Your task to perform on an android device: Is it going to rain tomorrow? Image 0: 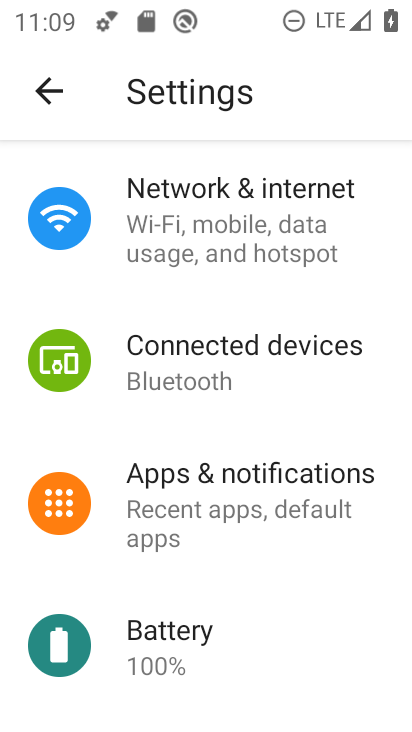
Step 0: press home button
Your task to perform on an android device: Is it going to rain tomorrow? Image 1: 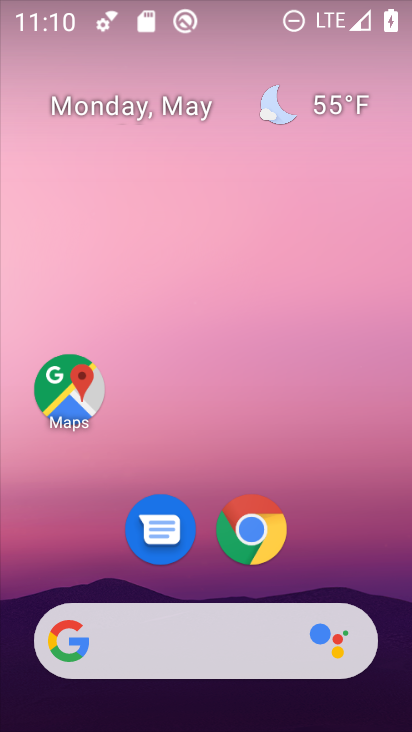
Step 1: click (320, 88)
Your task to perform on an android device: Is it going to rain tomorrow? Image 2: 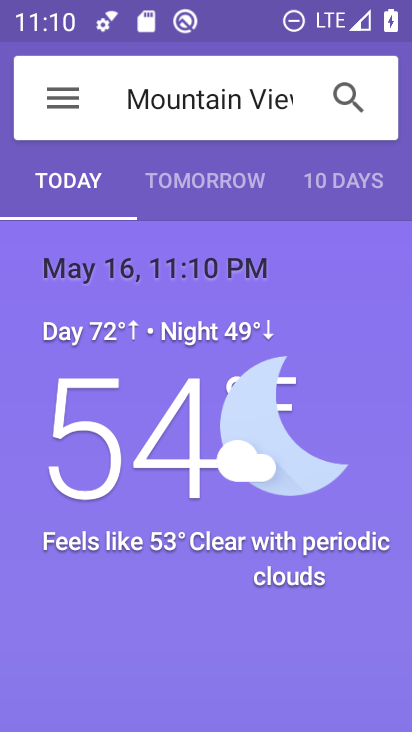
Step 2: click (196, 176)
Your task to perform on an android device: Is it going to rain tomorrow? Image 3: 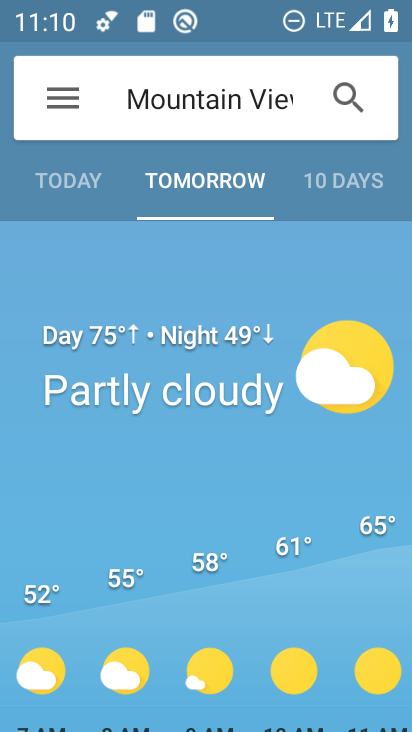
Step 3: task complete